Your task to perform on an android device: make emails show in primary in the gmail app Image 0: 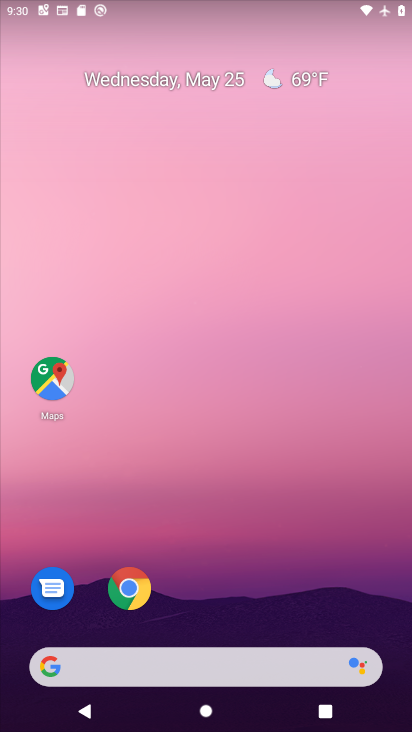
Step 0: drag from (359, 618) to (339, 166)
Your task to perform on an android device: make emails show in primary in the gmail app Image 1: 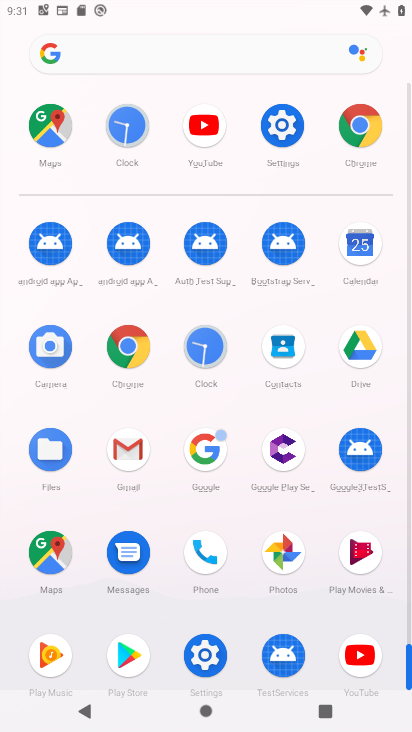
Step 1: click (134, 457)
Your task to perform on an android device: make emails show in primary in the gmail app Image 2: 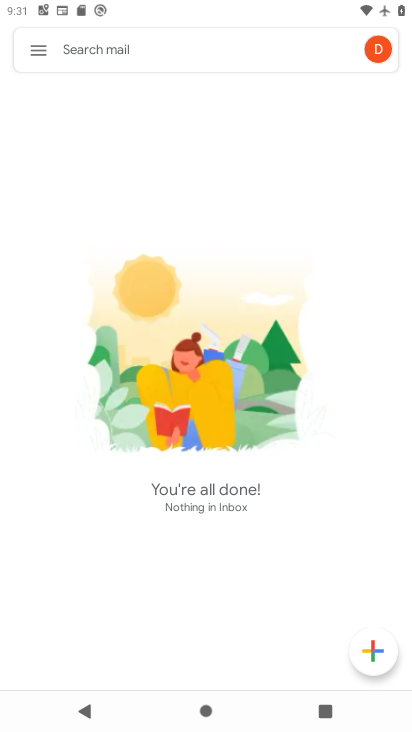
Step 2: click (42, 53)
Your task to perform on an android device: make emails show in primary in the gmail app Image 3: 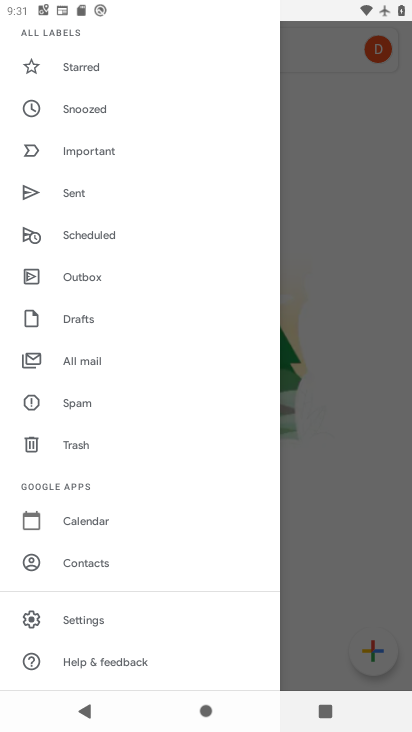
Step 3: drag from (200, 513) to (208, 379)
Your task to perform on an android device: make emails show in primary in the gmail app Image 4: 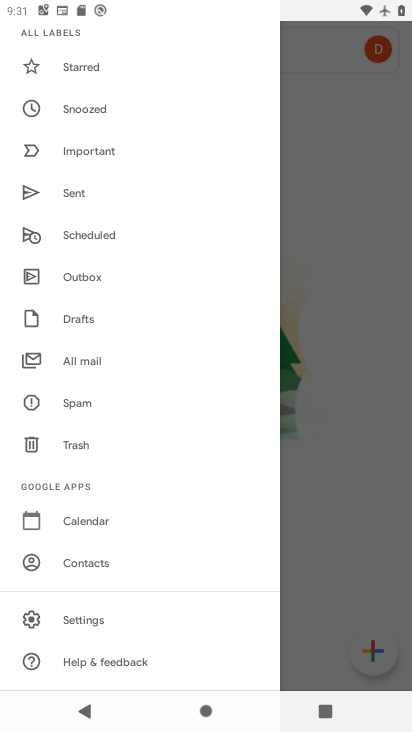
Step 4: drag from (227, 200) to (206, 372)
Your task to perform on an android device: make emails show in primary in the gmail app Image 5: 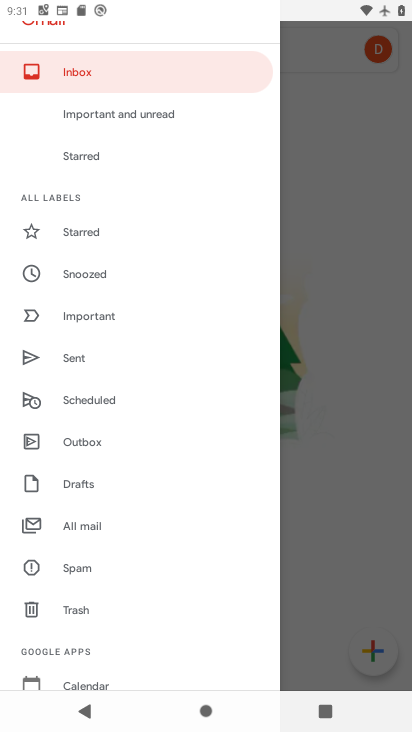
Step 5: drag from (213, 453) to (210, 287)
Your task to perform on an android device: make emails show in primary in the gmail app Image 6: 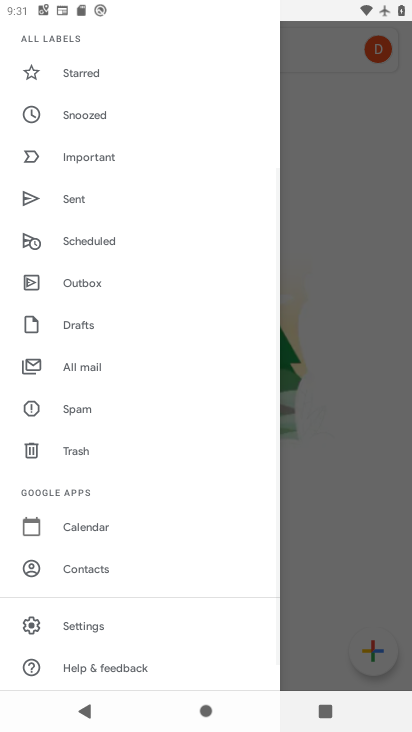
Step 6: drag from (210, 514) to (209, 407)
Your task to perform on an android device: make emails show in primary in the gmail app Image 7: 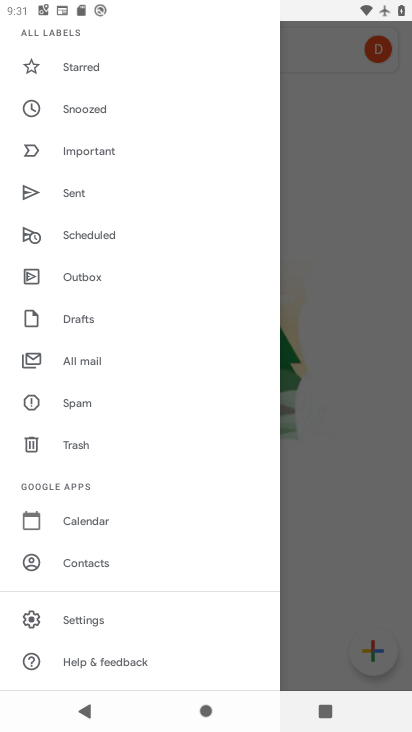
Step 7: click (148, 614)
Your task to perform on an android device: make emails show in primary in the gmail app Image 8: 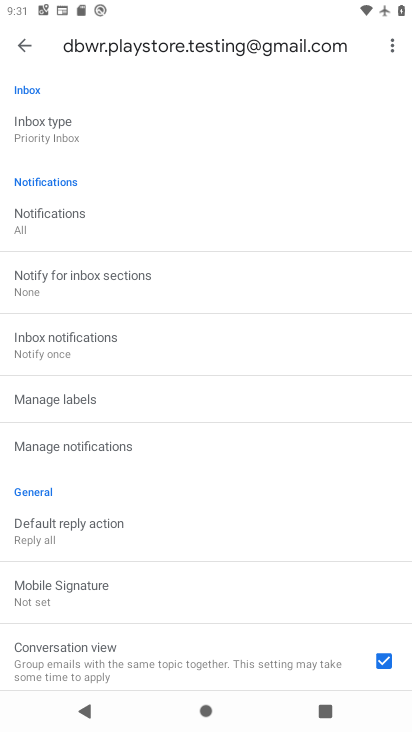
Step 8: drag from (229, 405) to (232, 313)
Your task to perform on an android device: make emails show in primary in the gmail app Image 9: 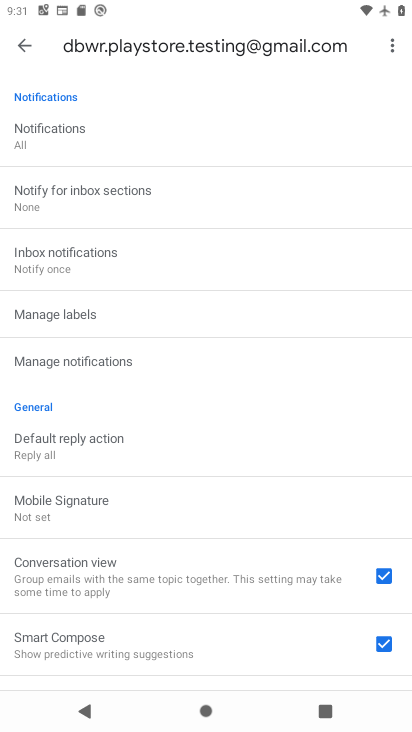
Step 9: drag from (218, 196) to (214, 330)
Your task to perform on an android device: make emails show in primary in the gmail app Image 10: 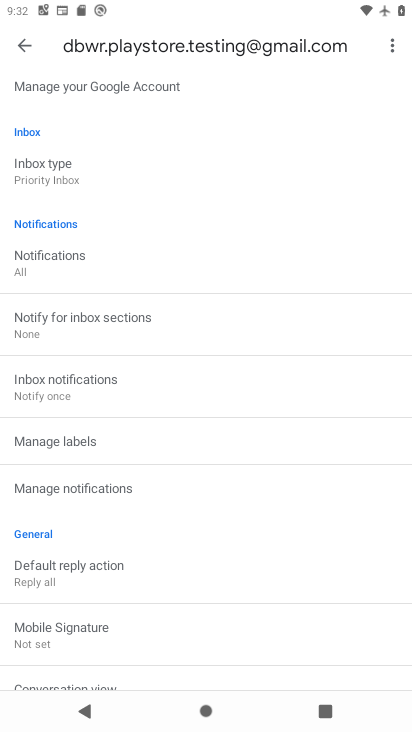
Step 10: click (61, 169)
Your task to perform on an android device: make emails show in primary in the gmail app Image 11: 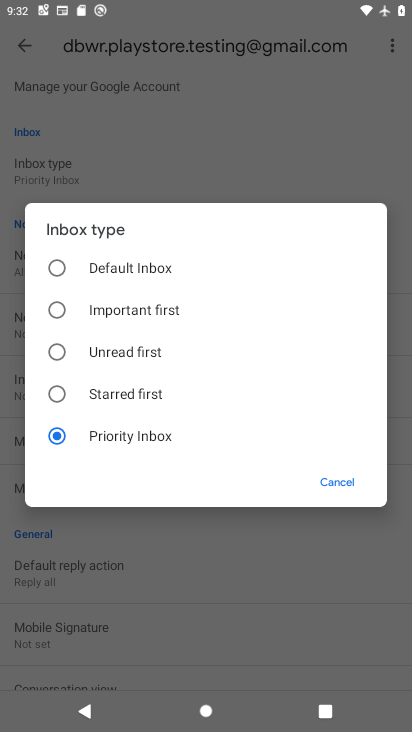
Step 11: click (120, 262)
Your task to perform on an android device: make emails show in primary in the gmail app Image 12: 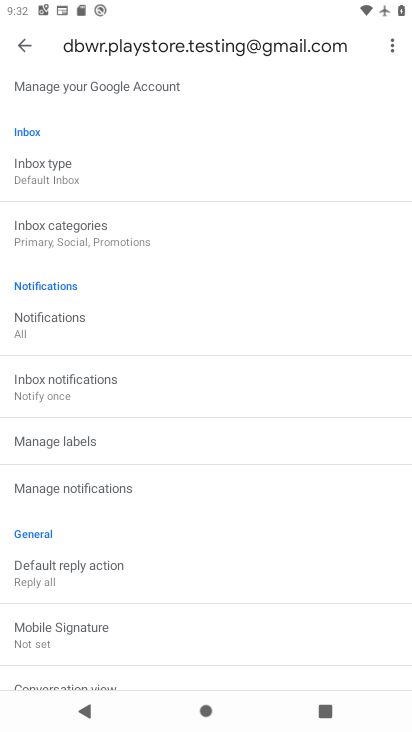
Step 12: click (143, 247)
Your task to perform on an android device: make emails show in primary in the gmail app Image 13: 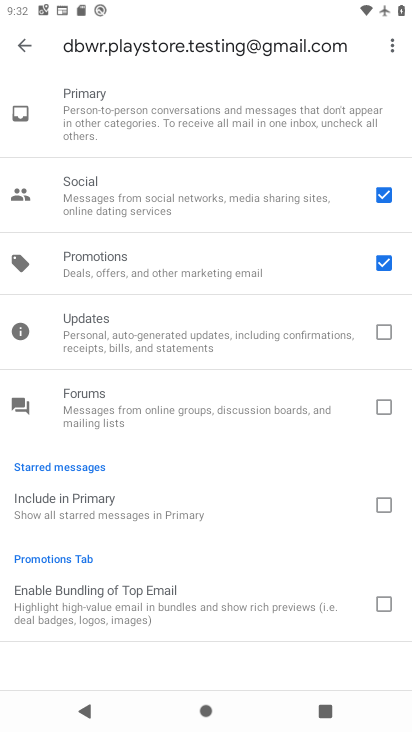
Step 13: click (385, 270)
Your task to perform on an android device: make emails show in primary in the gmail app Image 14: 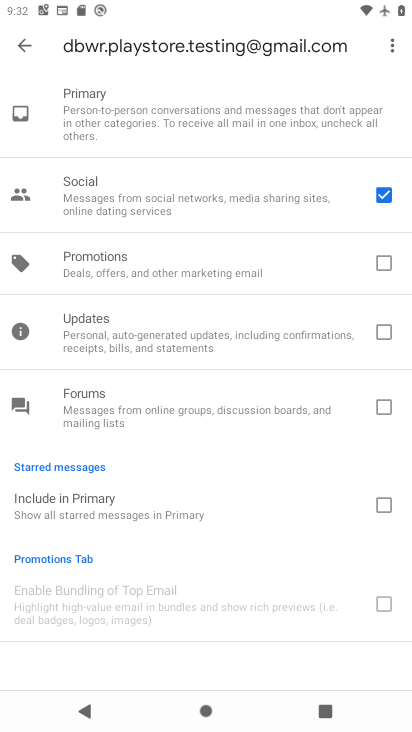
Step 14: click (381, 193)
Your task to perform on an android device: make emails show in primary in the gmail app Image 15: 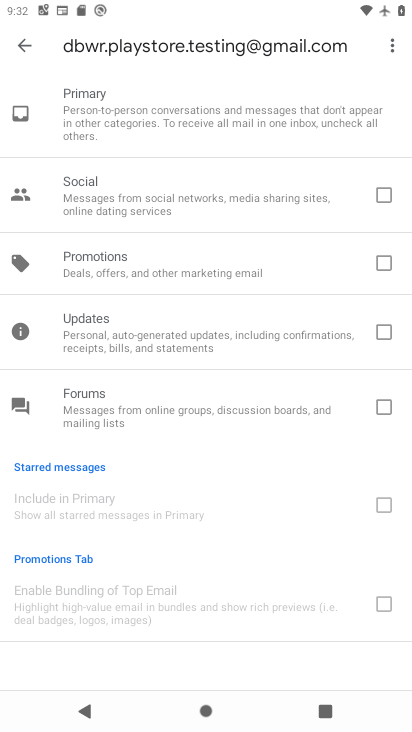
Step 15: task complete